Your task to perform on an android device: What's the weather today? Image 0: 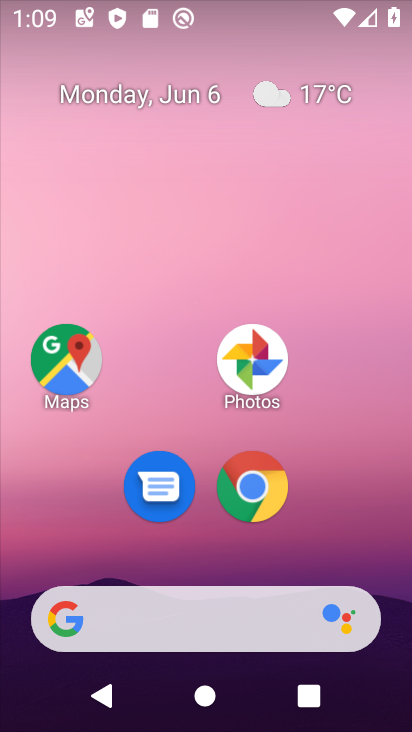
Step 0: click (250, 102)
Your task to perform on an android device: What's the weather today? Image 1: 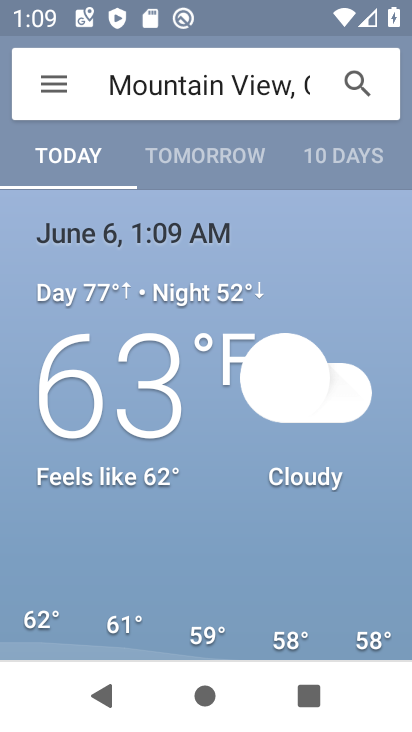
Step 1: task complete